Your task to perform on an android device: turn off data saver in the chrome app Image 0: 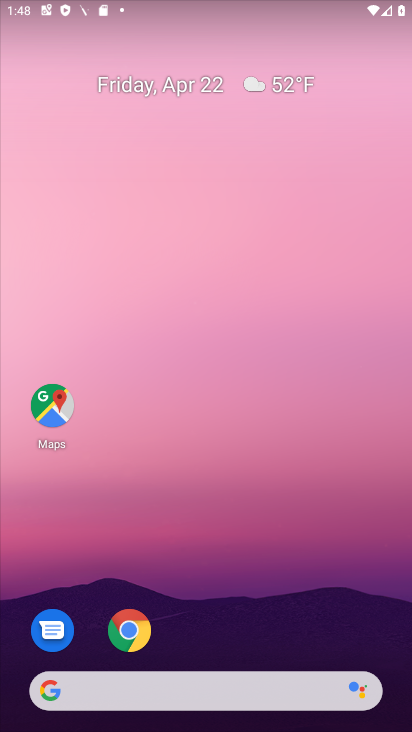
Step 0: drag from (365, 272) to (367, 185)
Your task to perform on an android device: turn off data saver in the chrome app Image 1: 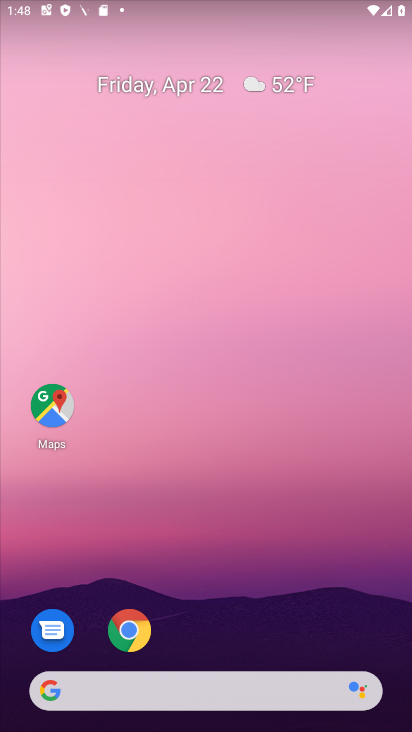
Step 1: drag from (356, 644) to (386, 104)
Your task to perform on an android device: turn off data saver in the chrome app Image 2: 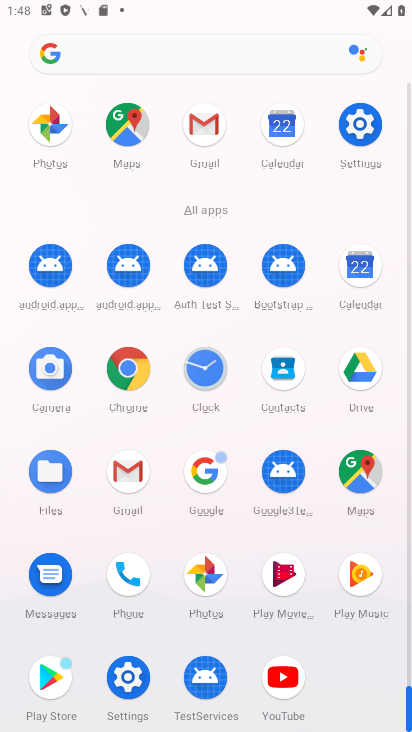
Step 2: click (137, 362)
Your task to perform on an android device: turn off data saver in the chrome app Image 3: 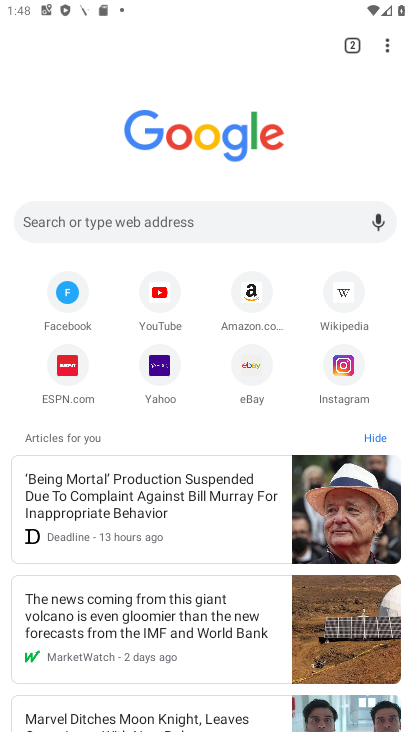
Step 3: click (388, 40)
Your task to perform on an android device: turn off data saver in the chrome app Image 4: 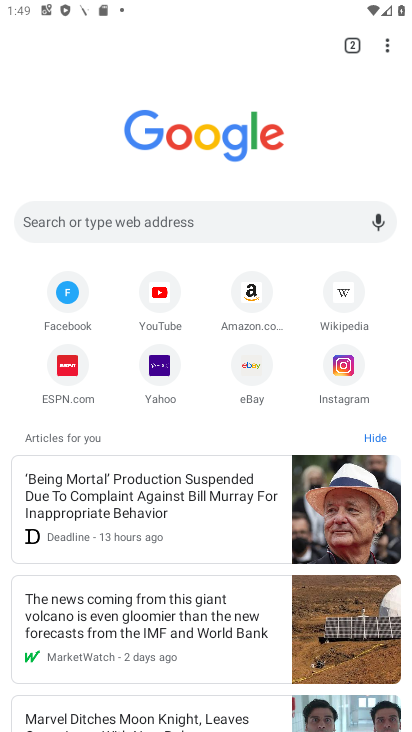
Step 4: click (388, 43)
Your task to perform on an android device: turn off data saver in the chrome app Image 5: 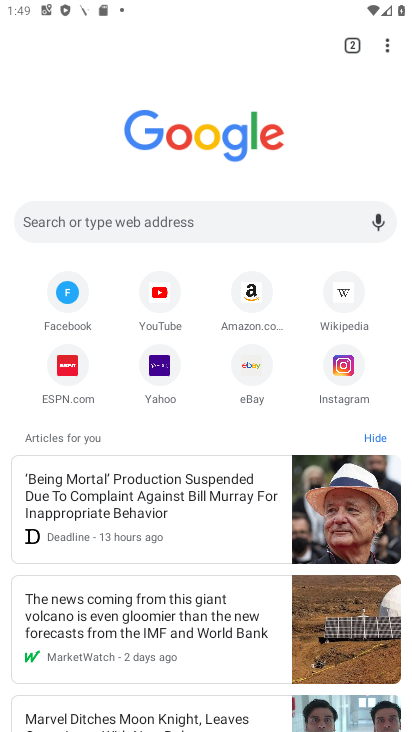
Step 5: click (388, 43)
Your task to perform on an android device: turn off data saver in the chrome app Image 6: 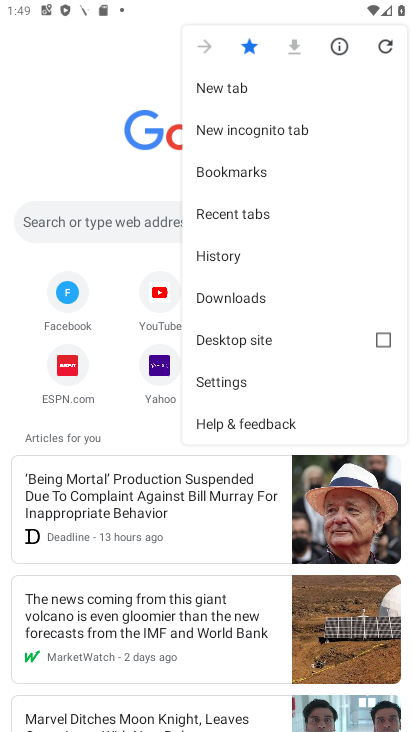
Step 6: click (219, 382)
Your task to perform on an android device: turn off data saver in the chrome app Image 7: 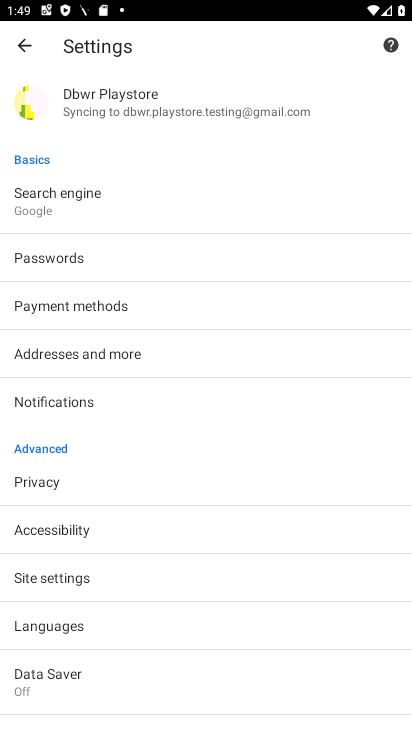
Step 7: click (68, 671)
Your task to perform on an android device: turn off data saver in the chrome app Image 8: 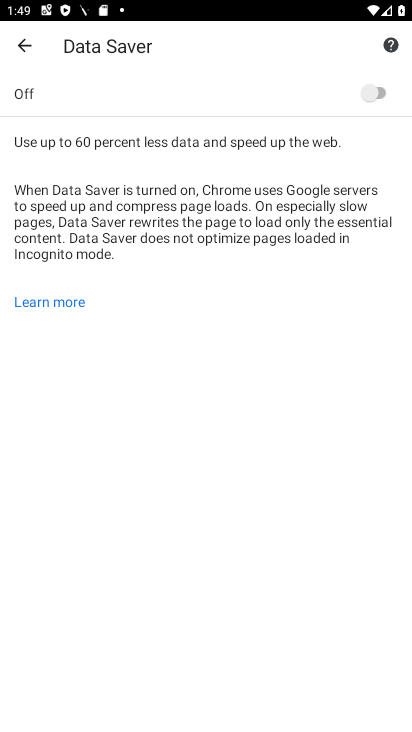
Step 8: task complete